Your task to perform on an android device: stop showing notifications on the lock screen Image 0: 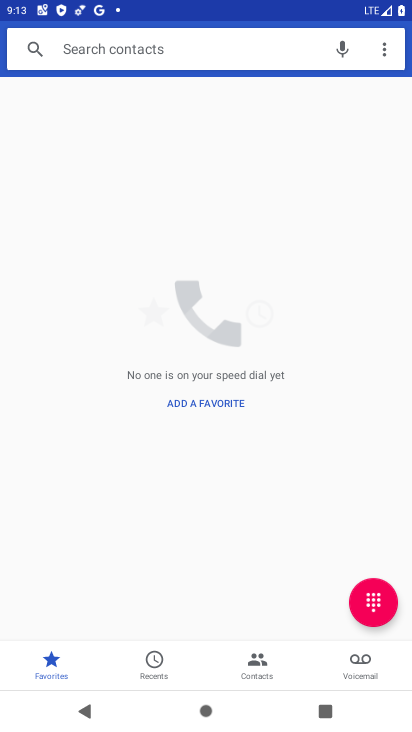
Step 0: press home button
Your task to perform on an android device: stop showing notifications on the lock screen Image 1: 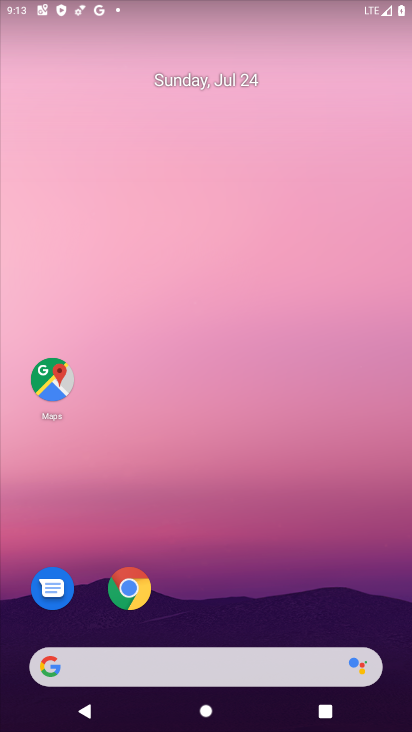
Step 1: drag from (210, 657) to (184, 4)
Your task to perform on an android device: stop showing notifications on the lock screen Image 2: 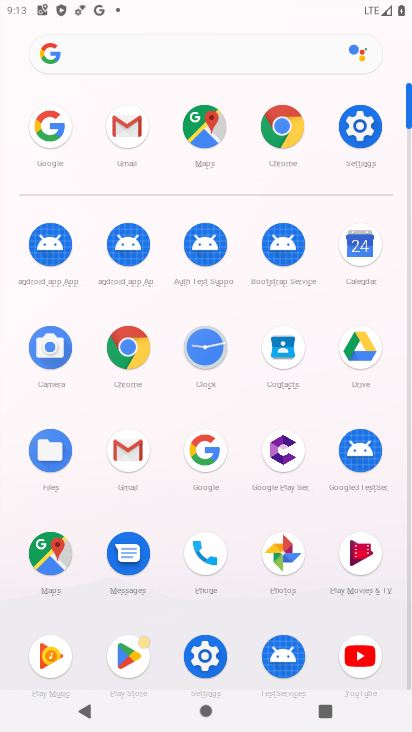
Step 2: click (196, 644)
Your task to perform on an android device: stop showing notifications on the lock screen Image 3: 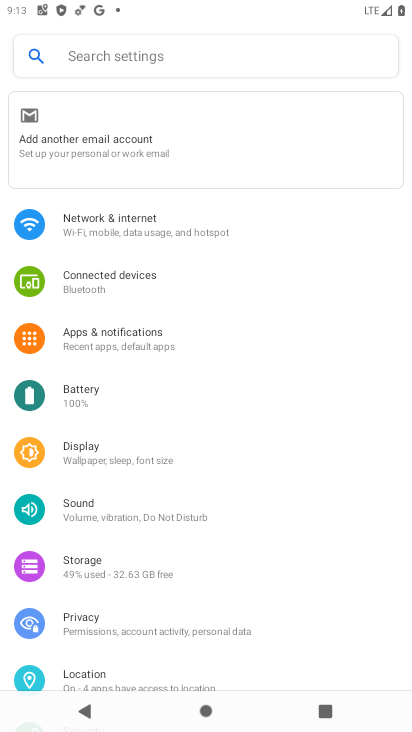
Step 3: click (143, 332)
Your task to perform on an android device: stop showing notifications on the lock screen Image 4: 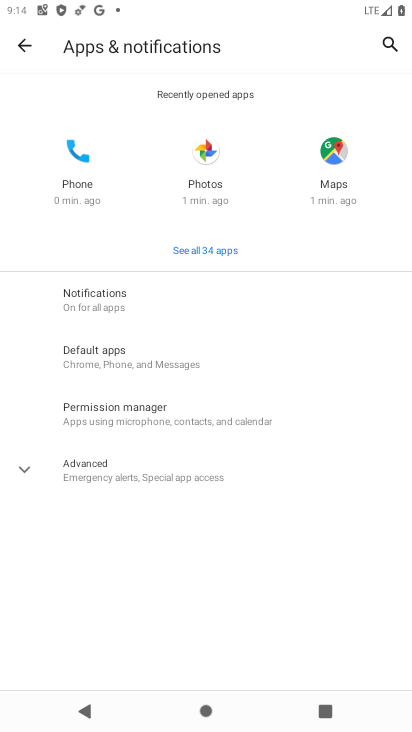
Step 4: click (132, 308)
Your task to perform on an android device: stop showing notifications on the lock screen Image 5: 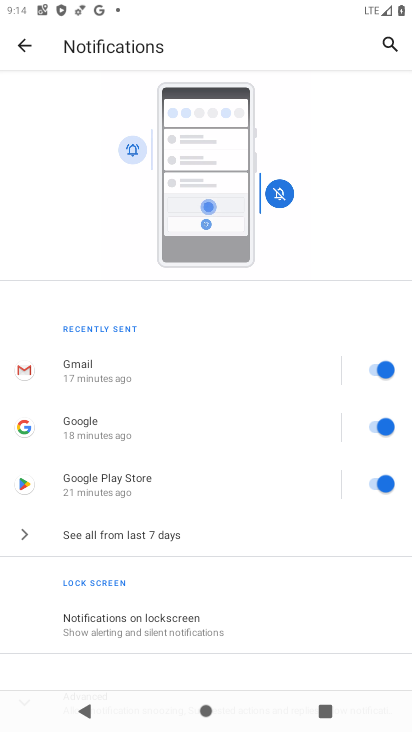
Step 5: click (118, 621)
Your task to perform on an android device: stop showing notifications on the lock screen Image 6: 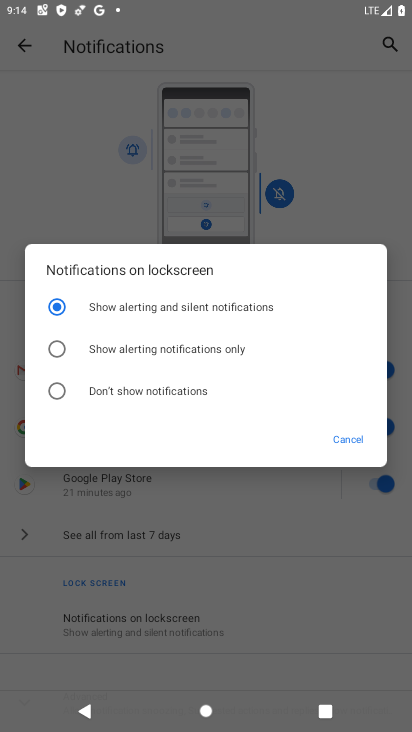
Step 6: click (145, 397)
Your task to perform on an android device: stop showing notifications on the lock screen Image 7: 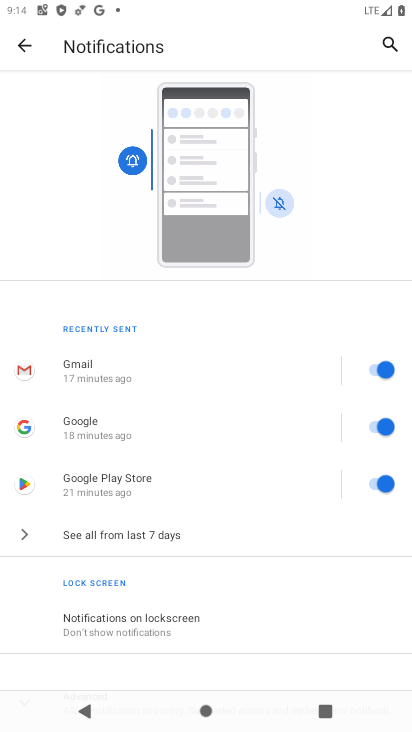
Step 7: task complete